Your task to perform on an android device: Open internet settings Image 0: 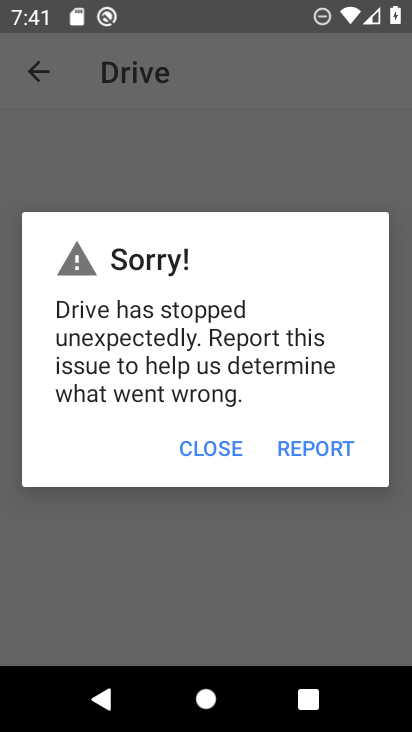
Step 0: drag from (339, 563) to (296, 62)
Your task to perform on an android device: Open internet settings Image 1: 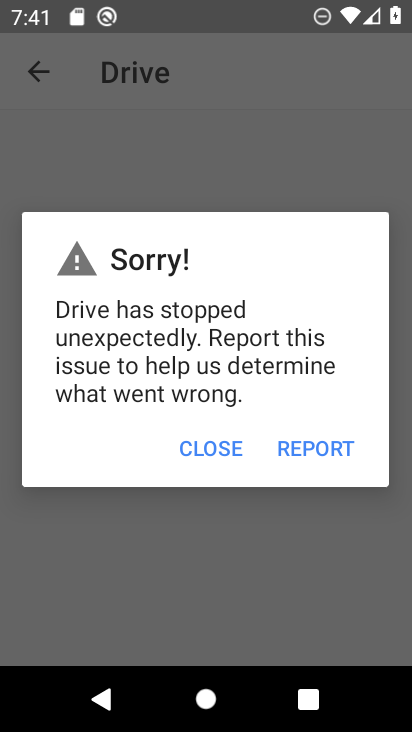
Step 1: press home button
Your task to perform on an android device: Open internet settings Image 2: 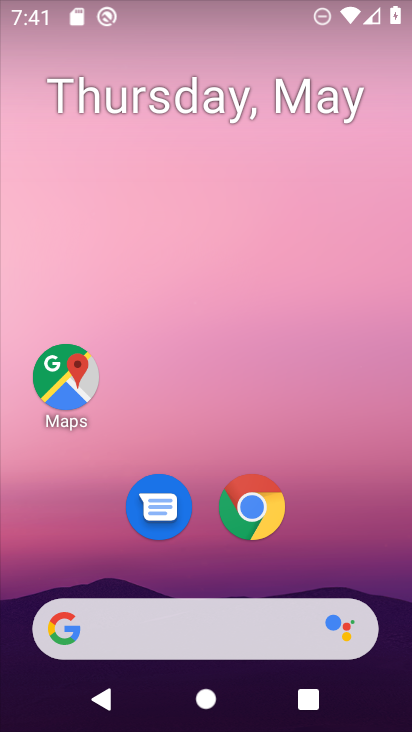
Step 2: drag from (372, 489) to (296, 48)
Your task to perform on an android device: Open internet settings Image 3: 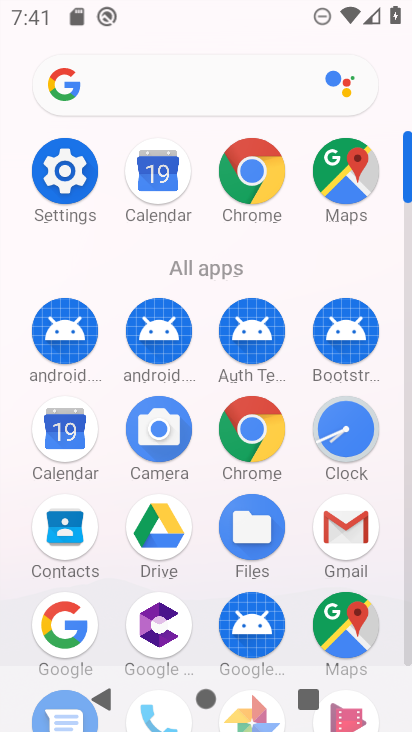
Step 3: click (37, 182)
Your task to perform on an android device: Open internet settings Image 4: 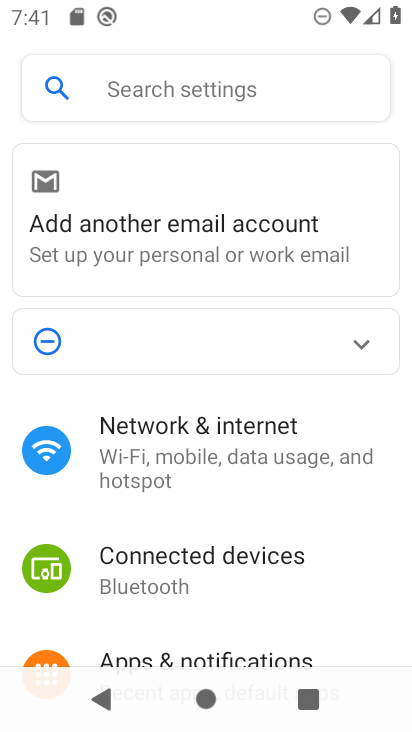
Step 4: click (263, 447)
Your task to perform on an android device: Open internet settings Image 5: 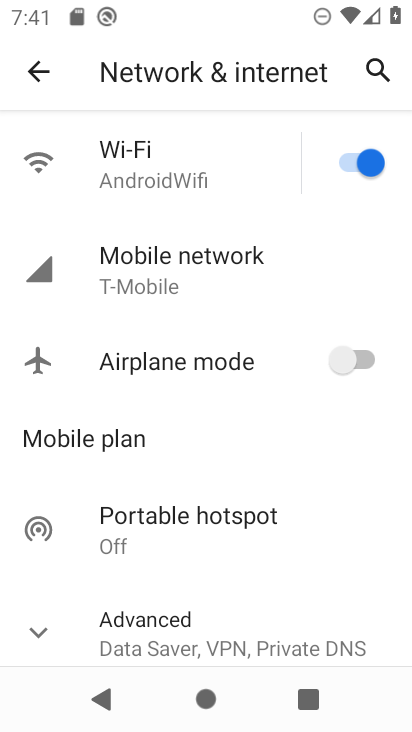
Step 5: task complete